Your task to perform on an android device: Open the web browser Image 0: 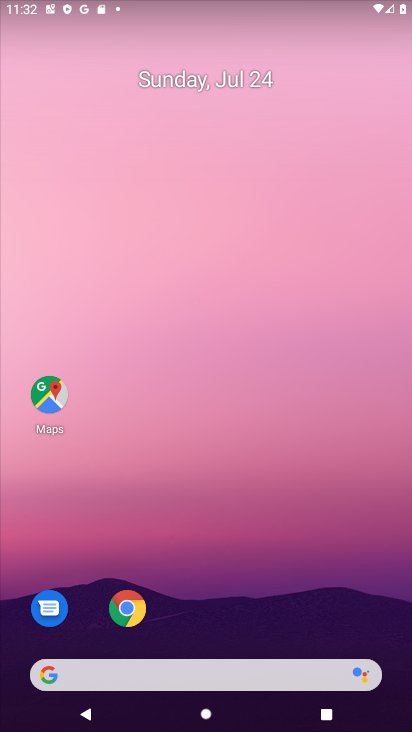
Step 0: drag from (215, 598) to (119, 38)
Your task to perform on an android device: Open the web browser Image 1: 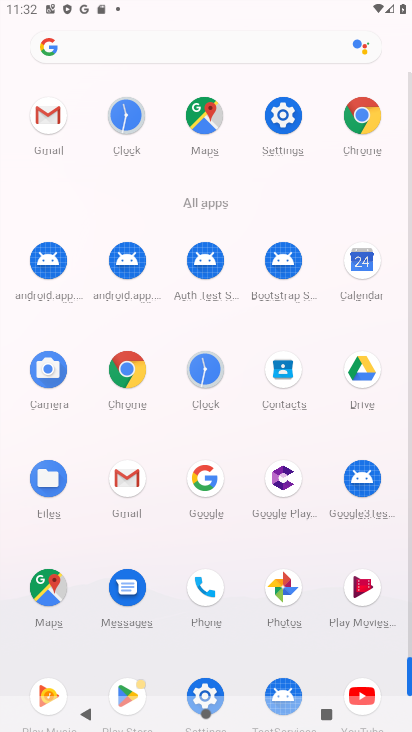
Step 1: click (372, 127)
Your task to perform on an android device: Open the web browser Image 2: 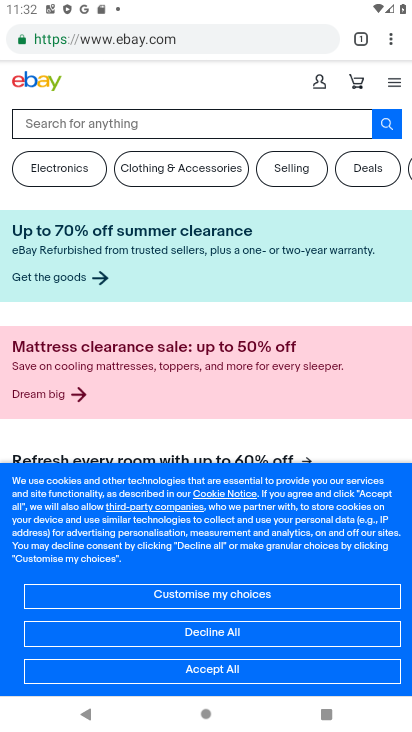
Step 2: task complete